Your task to perform on an android device: turn vacation reply on in the gmail app Image 0: 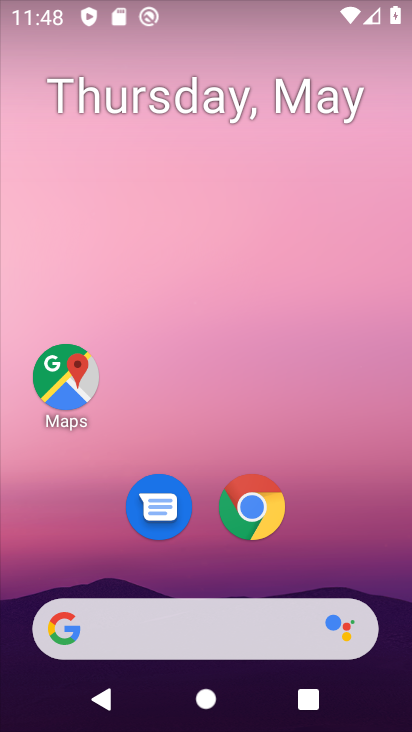
Step 0: drag from (197, 555) to (388, 119)
Your task to perform on an android device: turn vacation reply on in the gmail app Image 1: 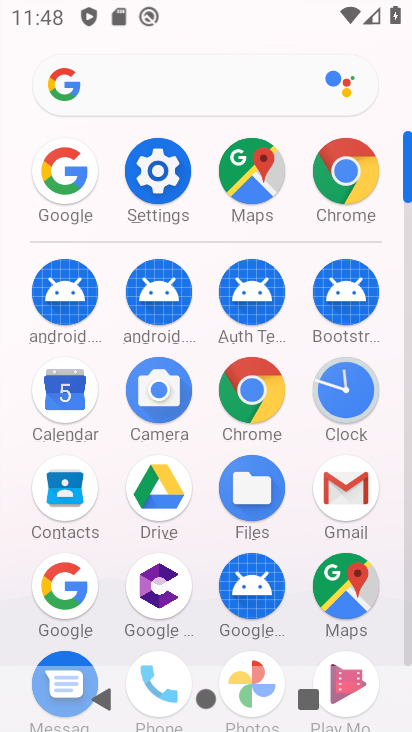
Step 1: click (341, 505)
Your task to perform on an android device: turn vacation reply on in the gmail app Image 2: 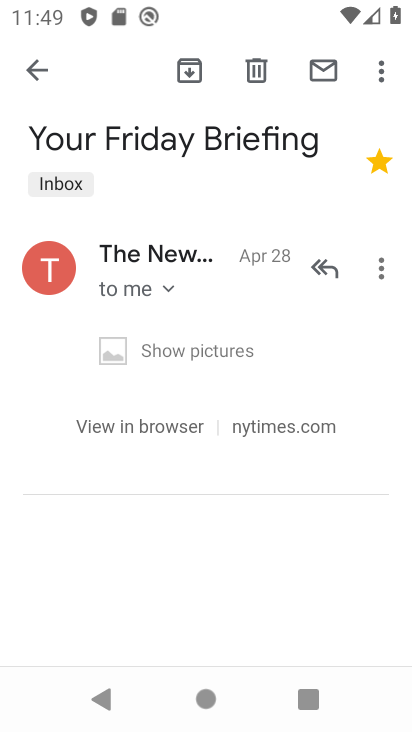
Step 2: click (39, 75)
Your task to perform on an android device: turn vacation reply on in the gmail app Image 3: 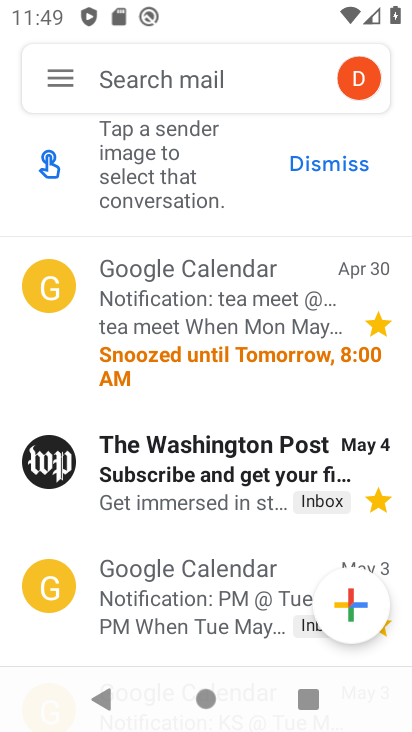
Step 3: click (68, 85)
Your task to perform on an android device: turn vacation reply on in the gmail app Image 4: 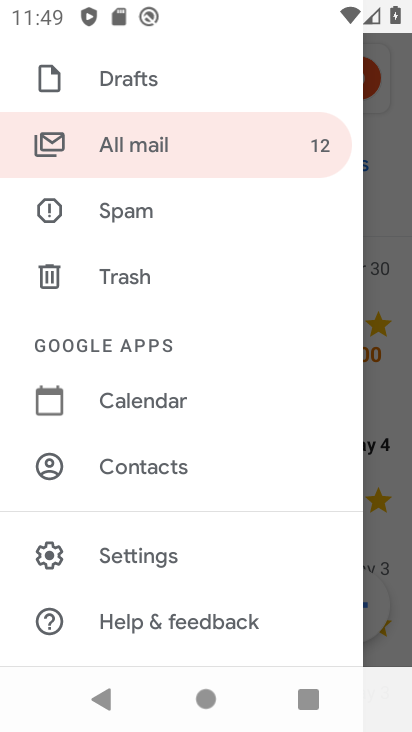
Step 4: click (160, 560)
Your task to perform on an android device: turn vacation reply on in the gmail app Image 5: 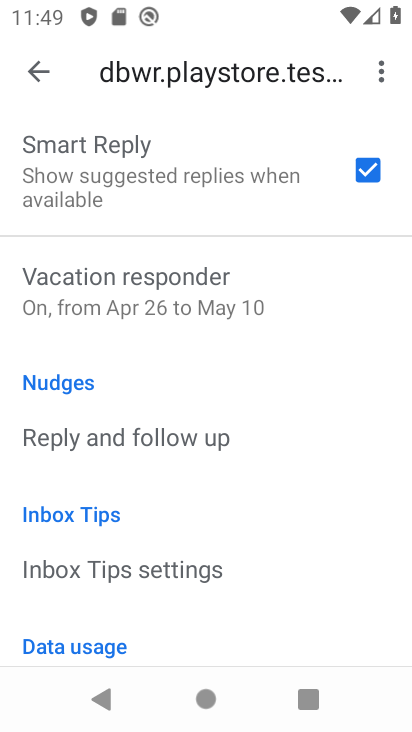
Step 5: drag from (129, 488) to (230, 3)
Your task to perform on an android device: turn vacation reply on in the gmail app Image 6: 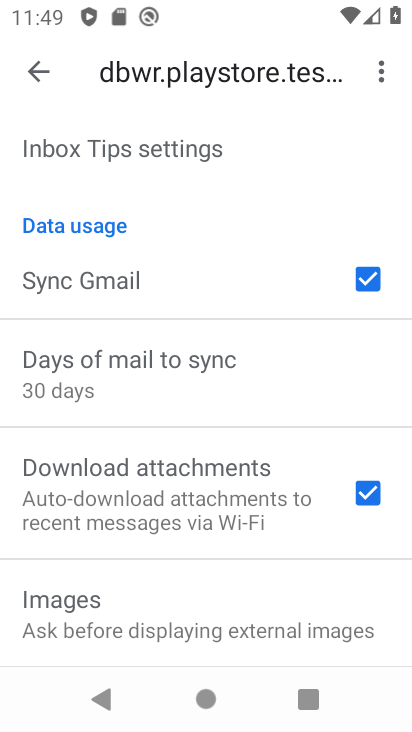
Step 6: drag from (204, 520) to (258, 71)
Your task to perform on an android device: turn vacation reply on in the gmail app Image 7: 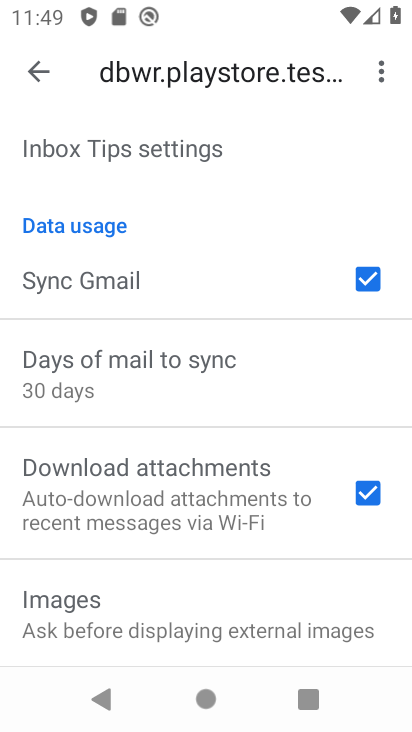
Step 7: drag from (196, 548) to (252, 201)
Your task to perform on an android device: turn vacation reply on in the gmail app Image 8: 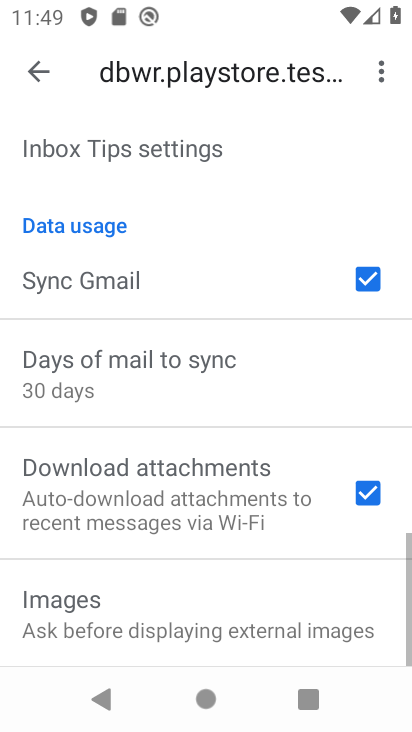
Step 8: drag from (195, 207) to (110, 656)
Your task to perform on an android device: turn vacation reply on in the gmail app Image 9: 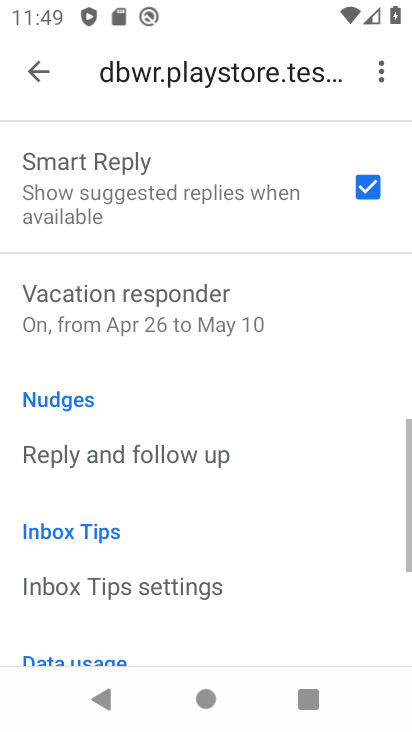
Step 9: drag from (236, 243) to (168, 643)
Your task to perform on an android device: turn vacation reply on in the gmail app Image 10: 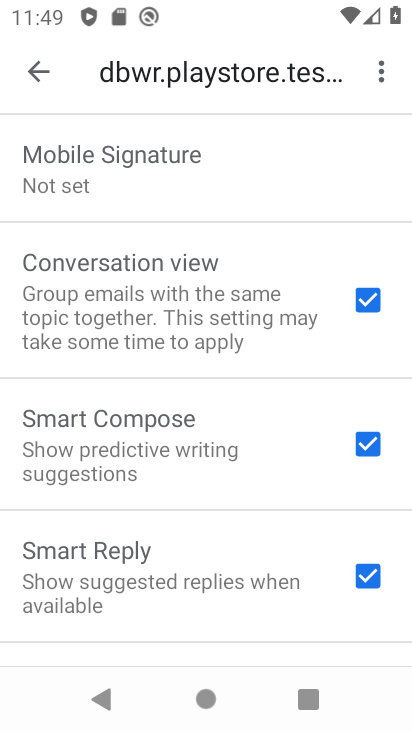
Step 10: drag from (193, 471) to (234, 205)
Your task to perform on an android device: turn vacation reply on in the gmail app Image 11: 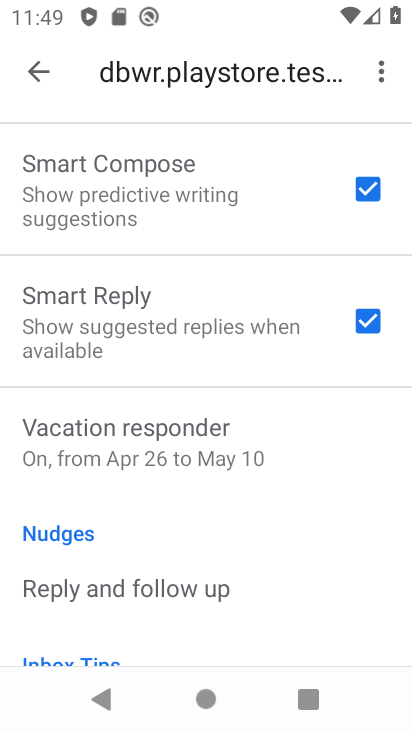
Step 11: click (215, 449)
Your task to perform on an android device: turn vacation reply on in the gmail app Image 12: 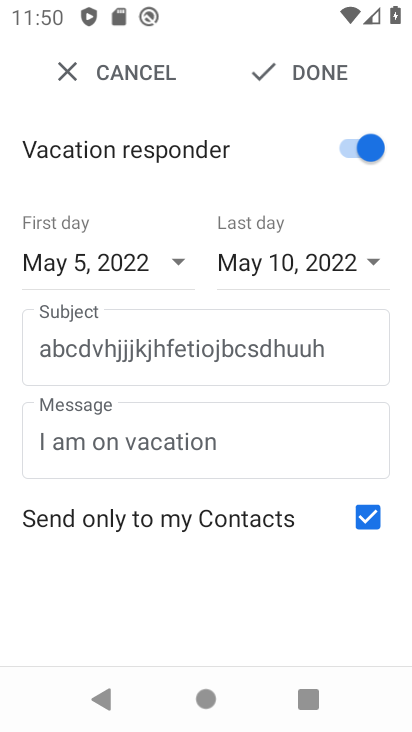
Step 12: task complete